Your task to perform on an android device: Search for pizza restaurants on Maps Image 0: 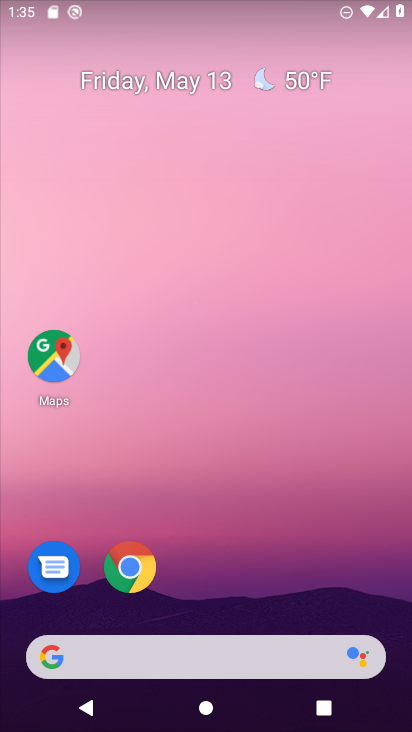
Step 0: click (47, 355)
Your task to perform on an android device: Search for pizza restaurants on Maps Image 1: 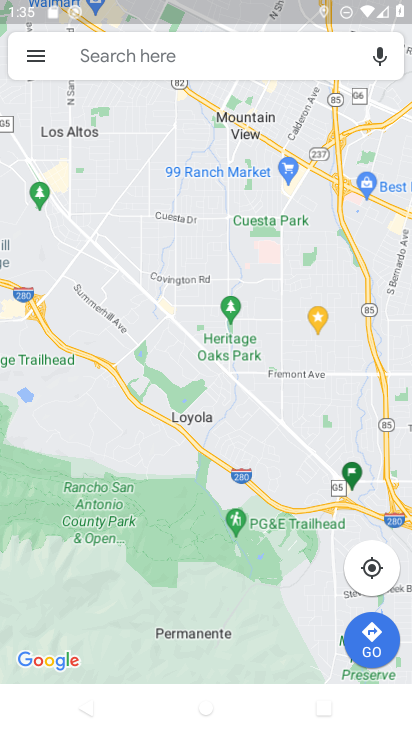
Step 1: click (109, 58)
Your task to perform on an android device: Search for pizza restaurants on Maps Image 2: 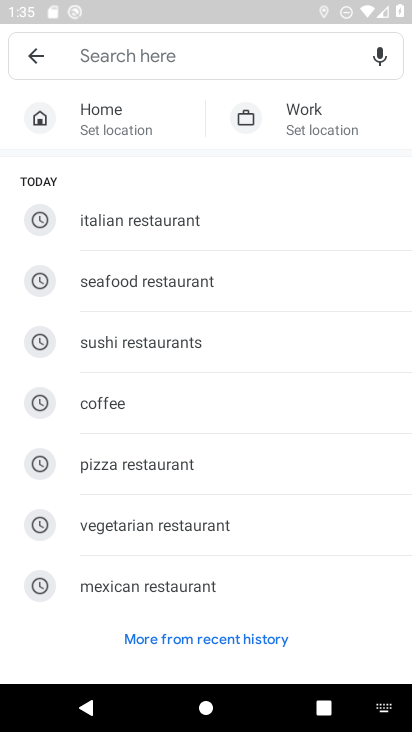
Step 2: click (149, 466)
Your task to perform on an android device: Search for pizza restaurants on Maps Image 3: 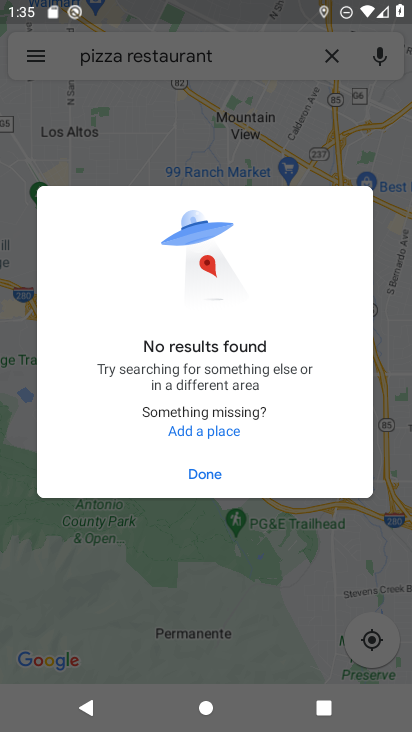
Step 3: click (205, 473)
Your task to perform on an android device: Search for pizza restaurants on Maps Image 4: 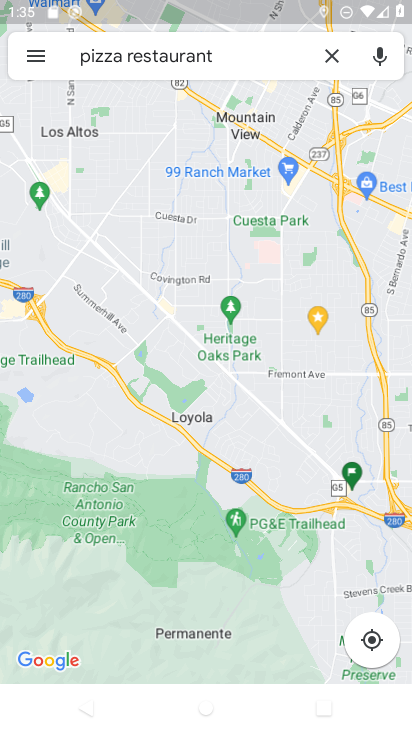
Step 4: task complete